Your task to perform on an android device: Check the weather Image 0: 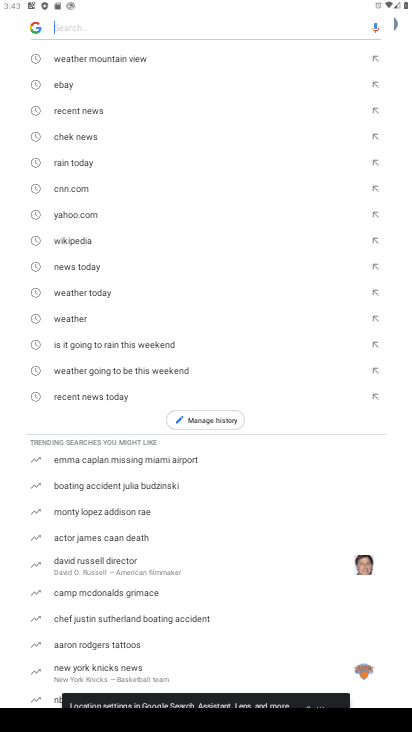
Step 0: press home button
Your task to perform on an android device: Check the weather Image 1: 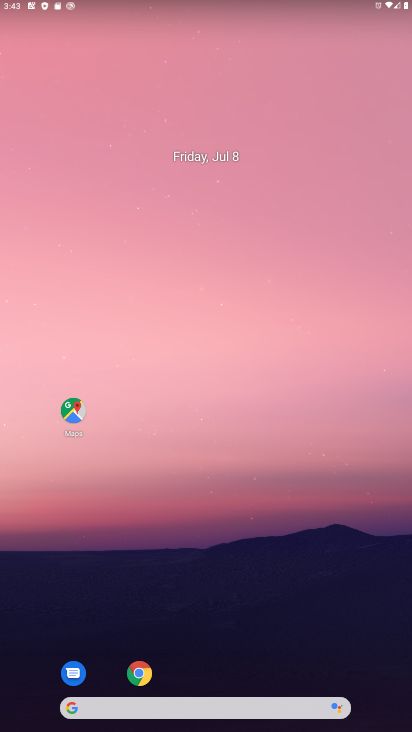
Step 1: click (144, 668)
Your task to perform on an android device: Check the weather Image 2: 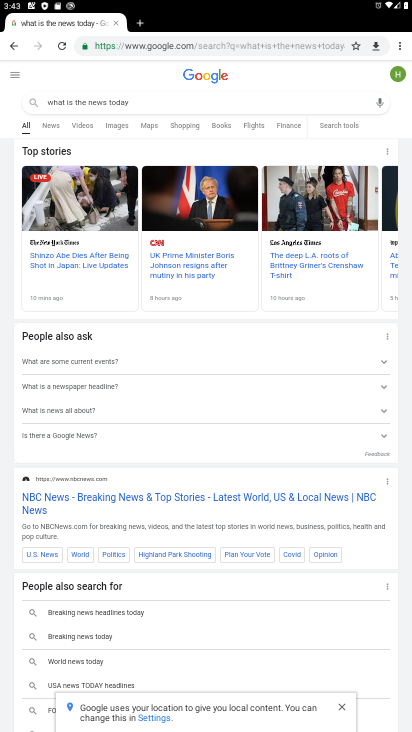
Step 2: click (155, 99)
Your task to perform on an android device: Check the weather Image 3: 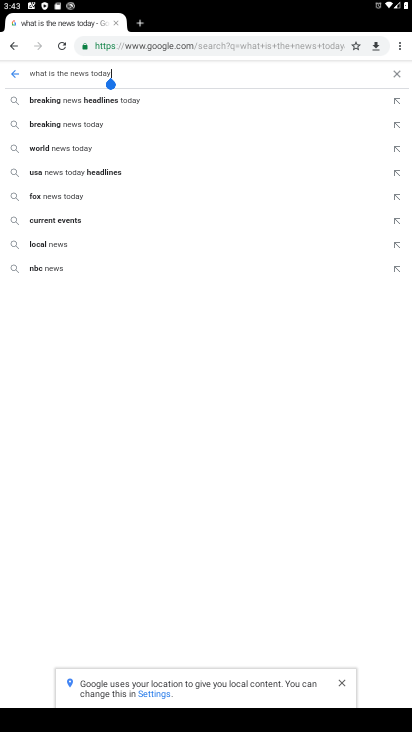
Step 3: click (392, 71)
Your task to perform on an android device: Check the weather Image 4: 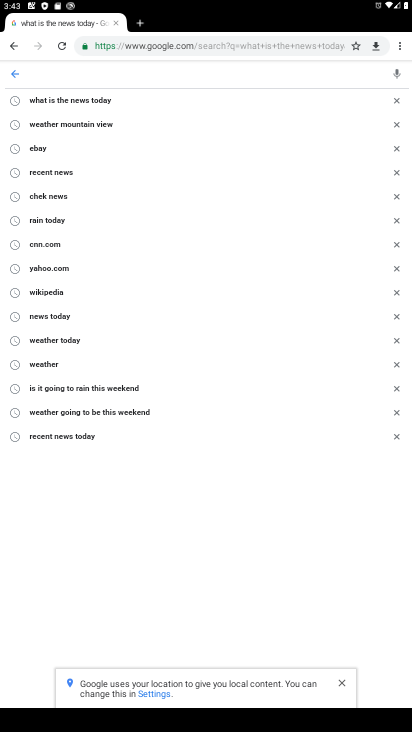
Step 4: type "check thw weather"
Your task to perform on an android device: Check the weather Image 5: 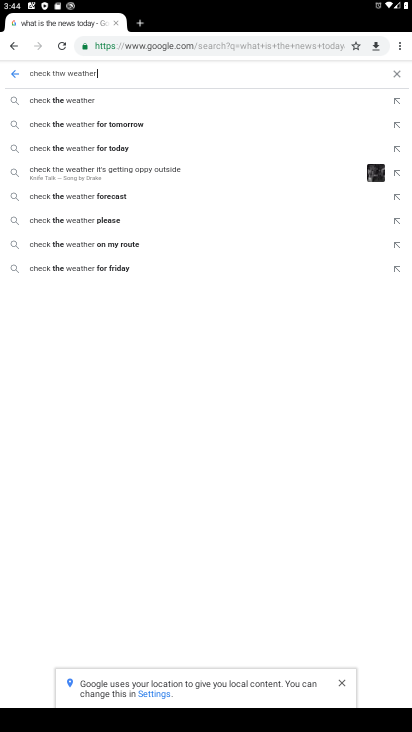
Step 5: click (55, 94)
Your task to perform on an android device: Check the weather Image 6: 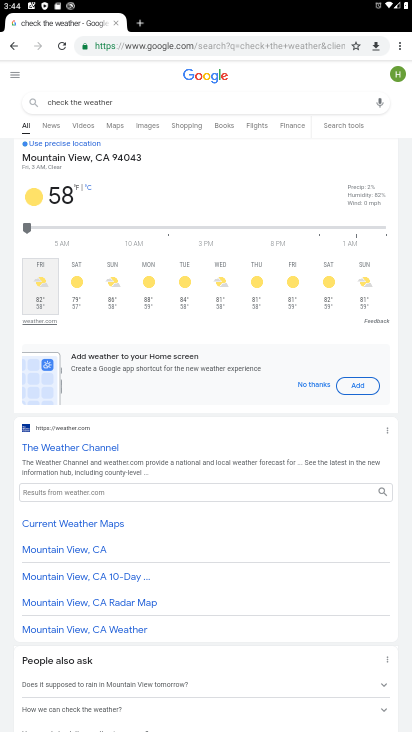
Step 6: task complete